Your task to perform on an android device: turn off picture-in-picture Image 0: 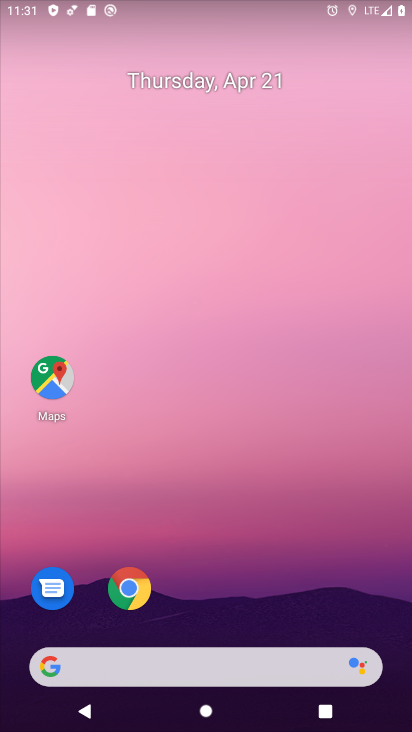
Step 0: drag from (242, 662) to (245, 102)
Your task to perform on an android device: turn off picture-in-picture Image 1: 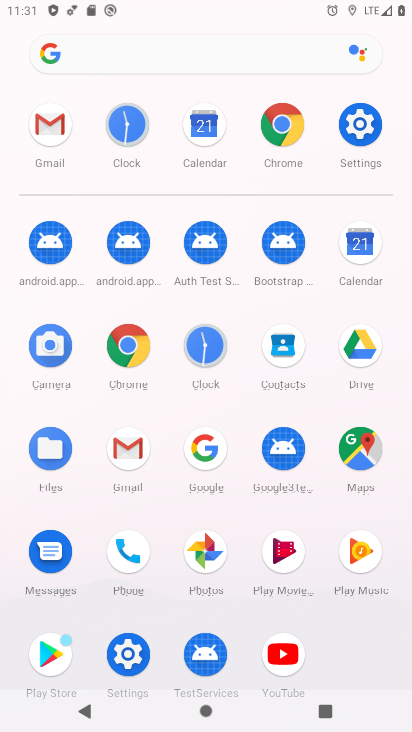
Step 1: click (351, 120)
Your task to perform on an android device: turn off picture-in-picture Image 2: 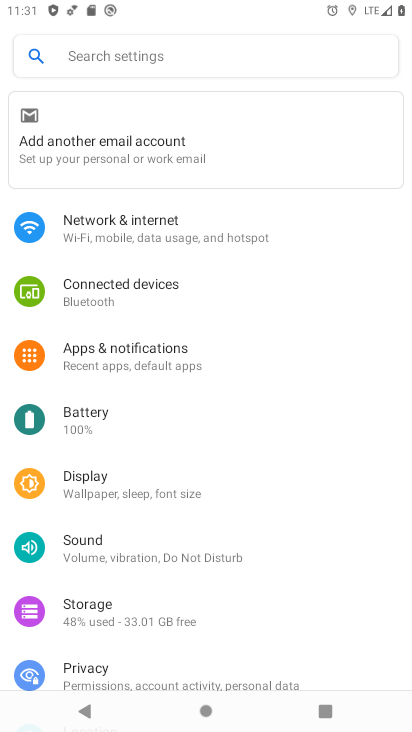
Step 2: click (231, 51)
Your task to perform on an android device: turn off picture-in-picture Image 3: 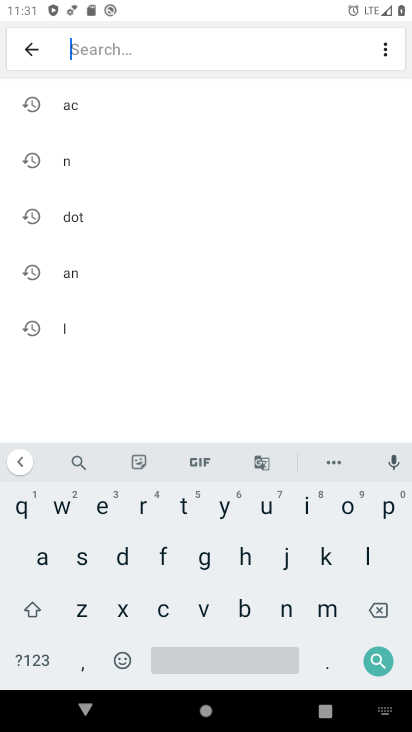
Step 3: click (116, 52)
Your task to perform on an android device: turn off picture-in-picture Image 4: 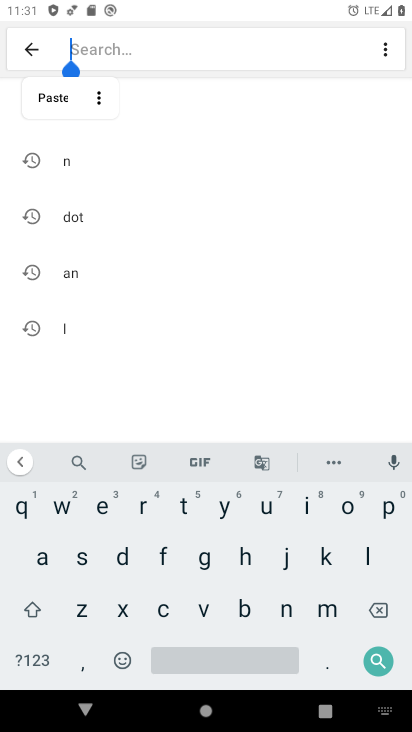
Step 4: click (388, 510)
Your task to perform on an android device: turn off picture-in-picture Image 5: 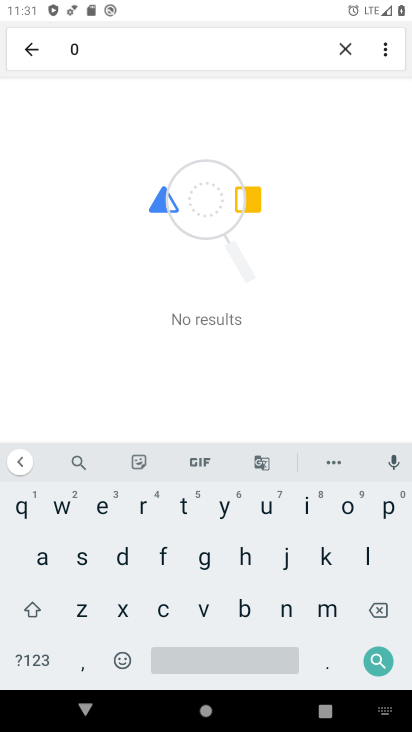
Step 5: click (383, 612)
Your task to perform on an android device: turn off picture-in-picture Image 6: 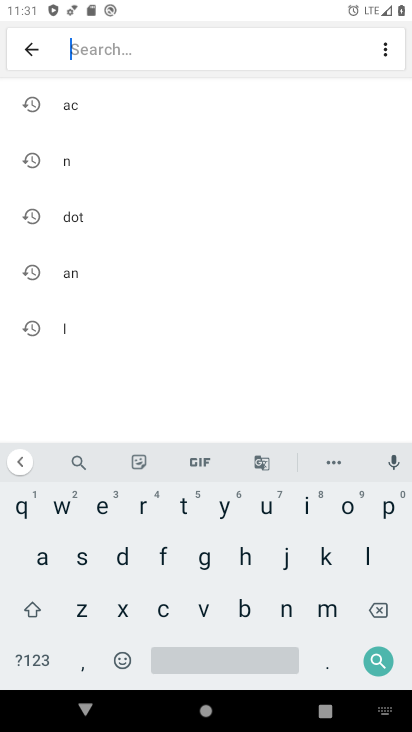
Step 6: click (387, 510)
Your task to perform on an android device: turn off picture-in-picture Image 7: 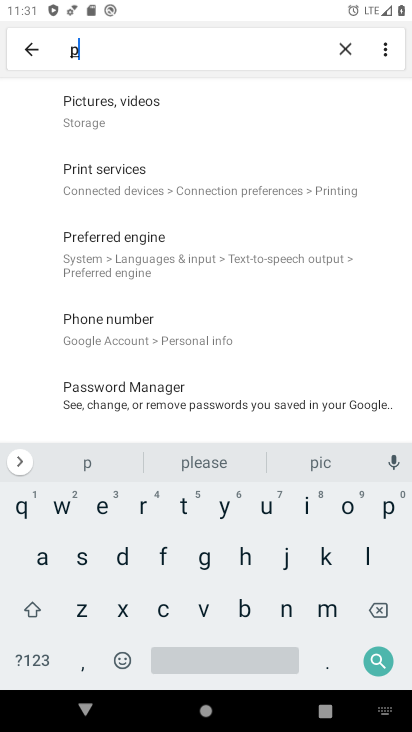
Step 7: click (304, 510)
Your task to perform on an android device: turn off picture-in-picture Image 8: 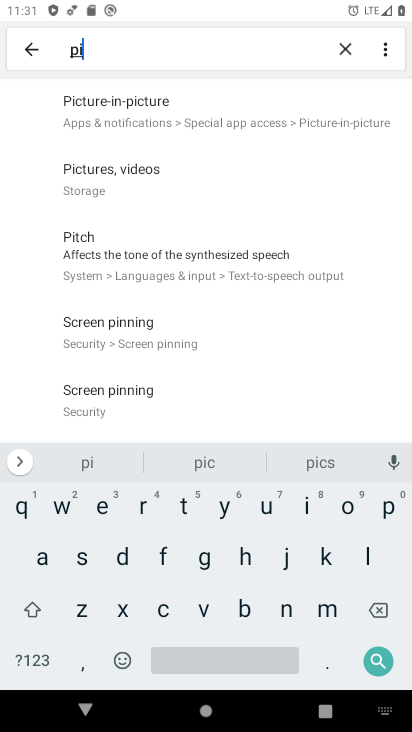
Step 8: click (244, 120)
Your task to perform on an android device: turn off picture-in-picture Image 9: 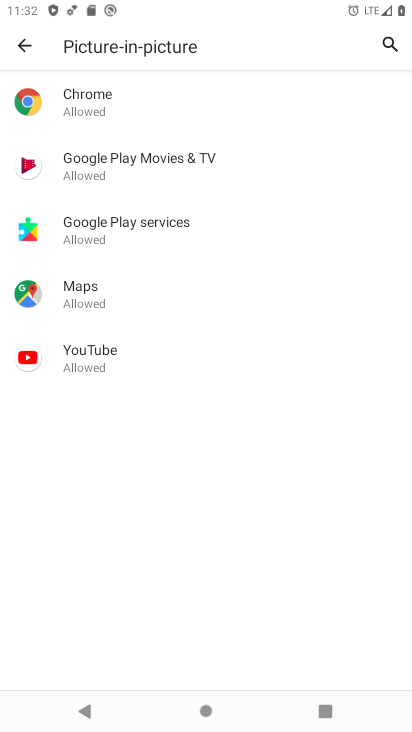
Step 9: task complete